Your task to perform on an android device: Open ESPN.com Image 0: 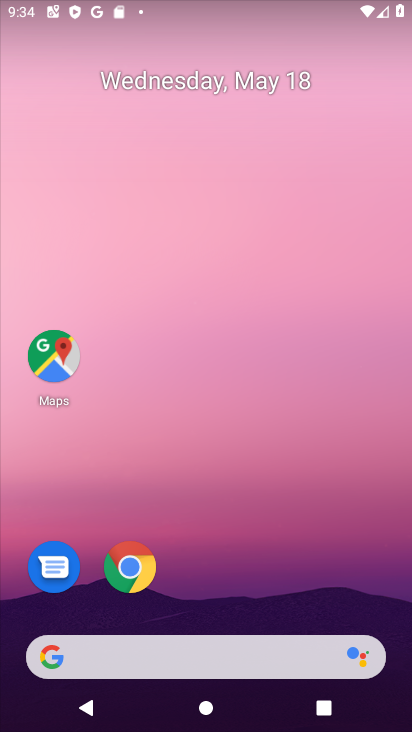
Step 0: click (148, 582)
Your task to perform on an android device: Open ESPN.com Image 1: 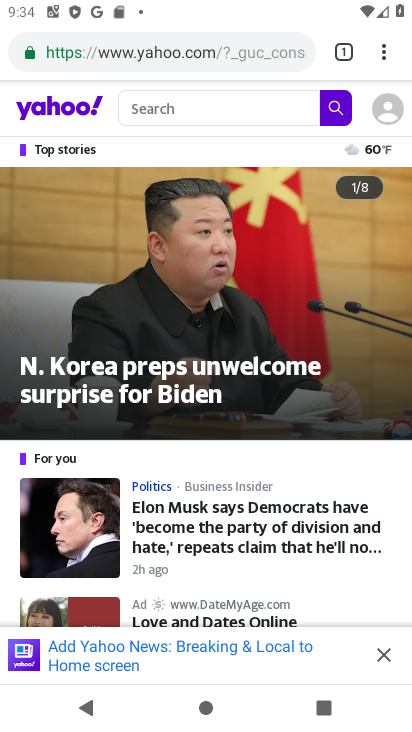
Step 1: click (187, 58)
Your task to perform on an android device: Open ESPN.com Image 2: 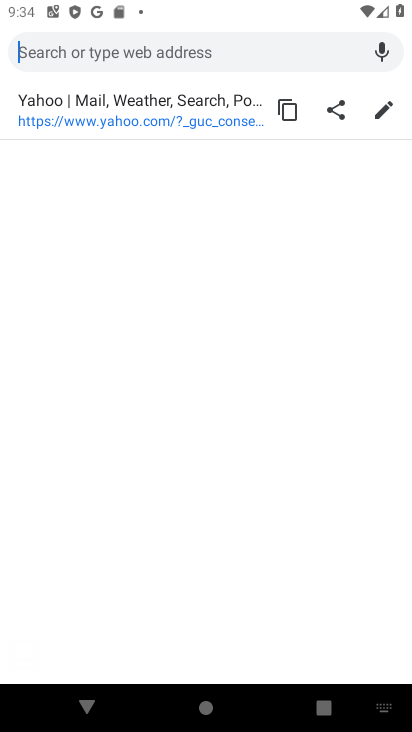
Step 2: type "espn.com"
Your task to perform on an android device: Open ESPN.com Image 3: 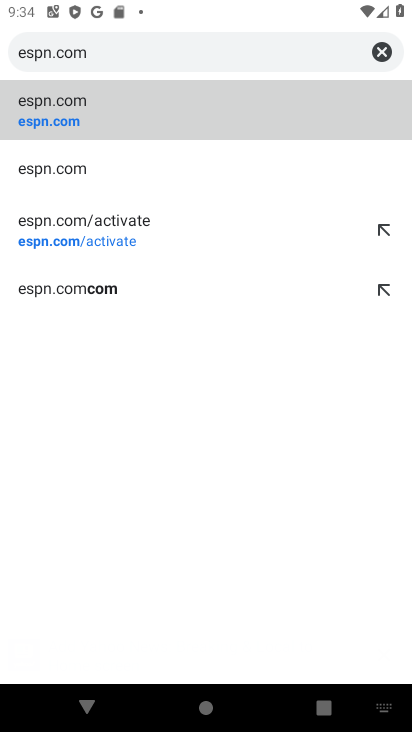
Step 3: click (174, 105)
Your task to perform on an android device: Open ESPN.com Image 4: 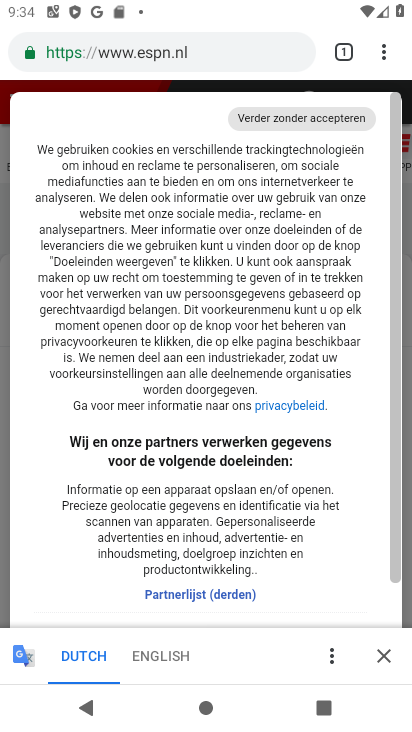
Step 4: task complete